Your task to perform on an android device: turn off airplane mode Image 0: 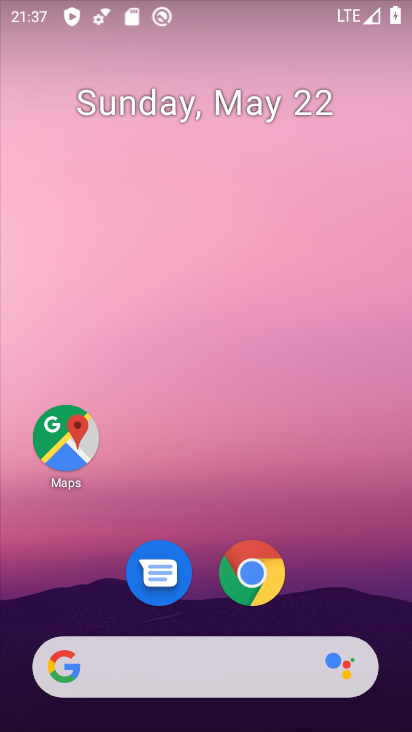
Step 0: press home button
Your task to perform on an android device: turn off airplane mode Image 1: 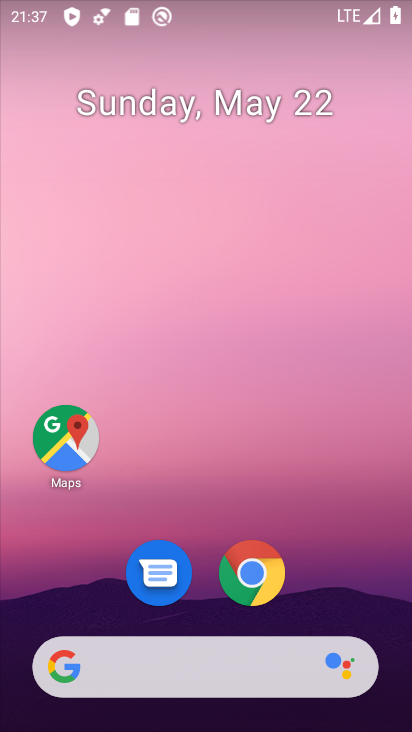
Step 1: task complete